Your task to perform on an android device: open wifi settings Image 0: 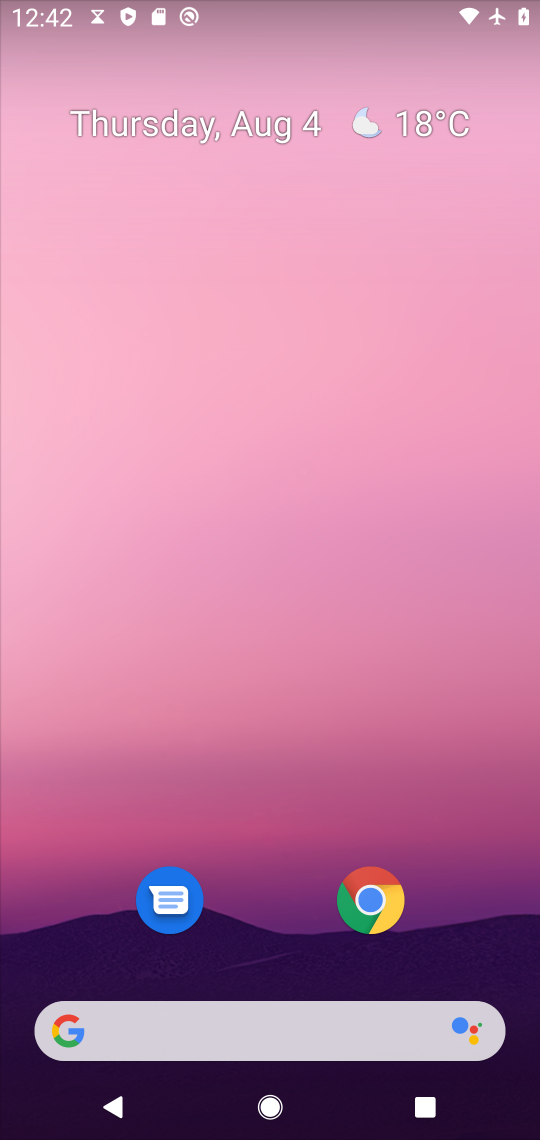
Step 0: press home button
Your task to perform on an android device: open wifi settings Image 1: 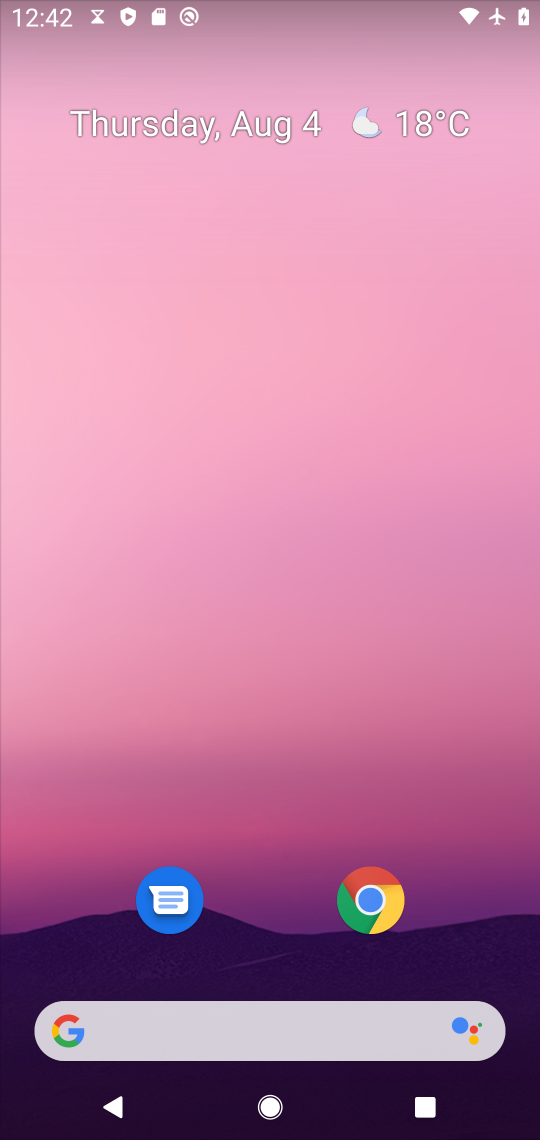
Step 1: drag from (269, 19) to (482, 761)
Your task to perform on an android device: open wifi settings Image 2: 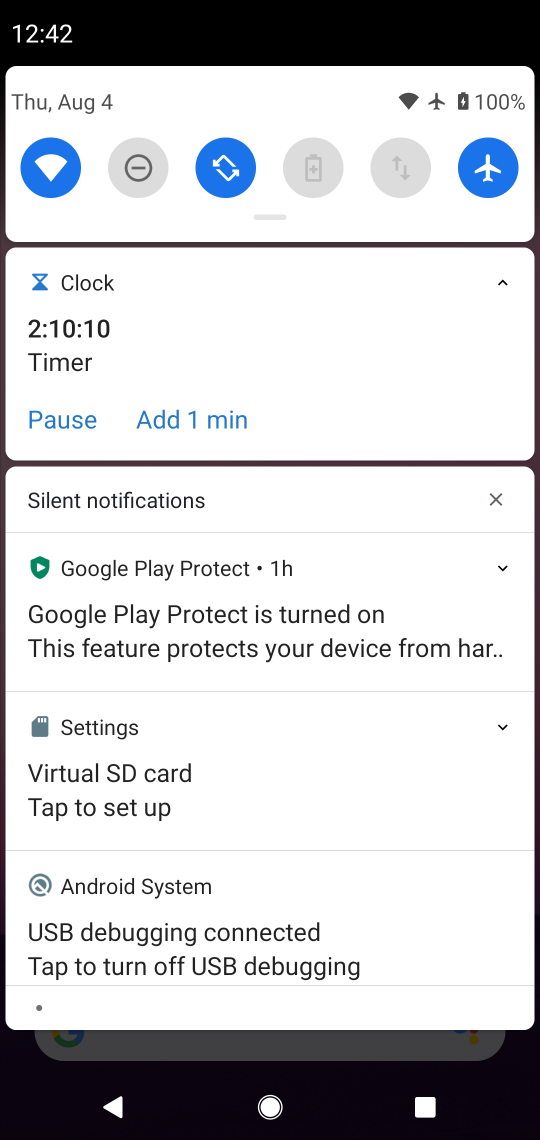
Step 2: click (57, 168)
Your task to perform on an android device: open wifi settings Image 3: 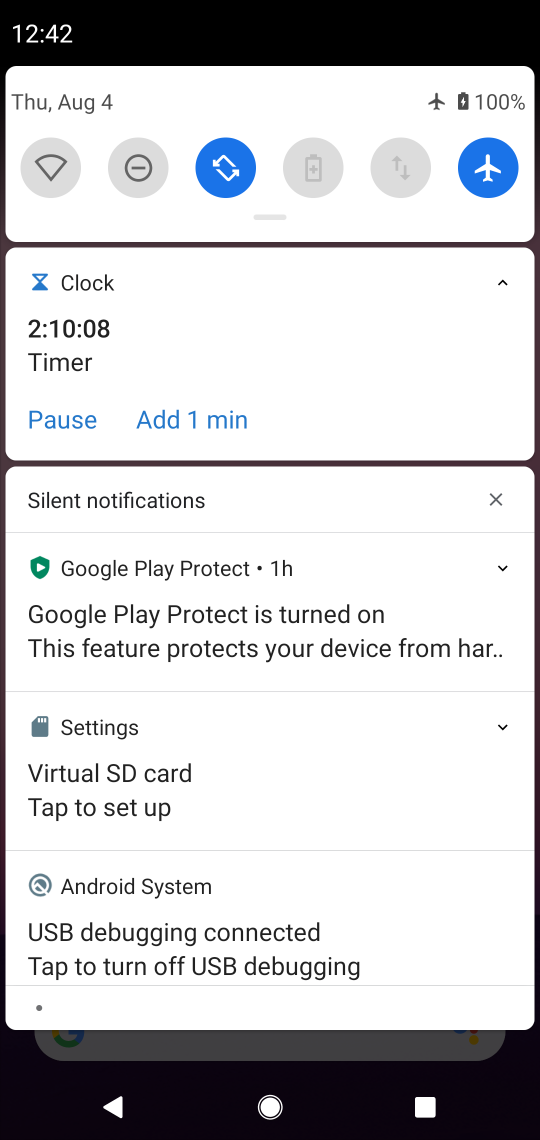
Step 3: click (57, 168)
Your task to perform on an android device: open wifi settings Image 4: 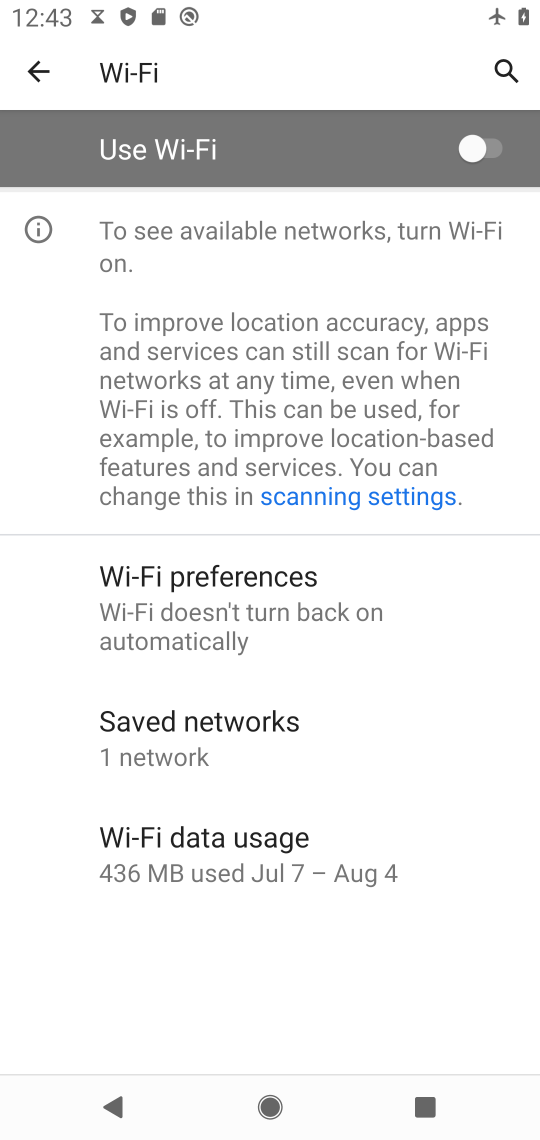
Step 4: click (483, 151)
Your task to perform on an android device: open wifi settings Image 5: 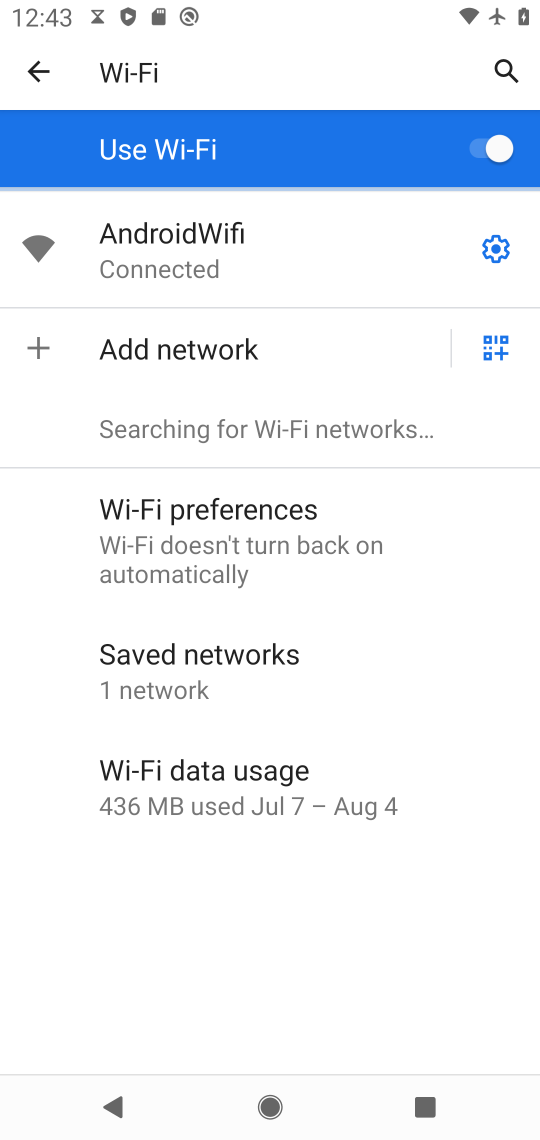
Step 5: task complete